Your task to perform on an android device: open app "Booking.com: Hotels and more" Image 0: 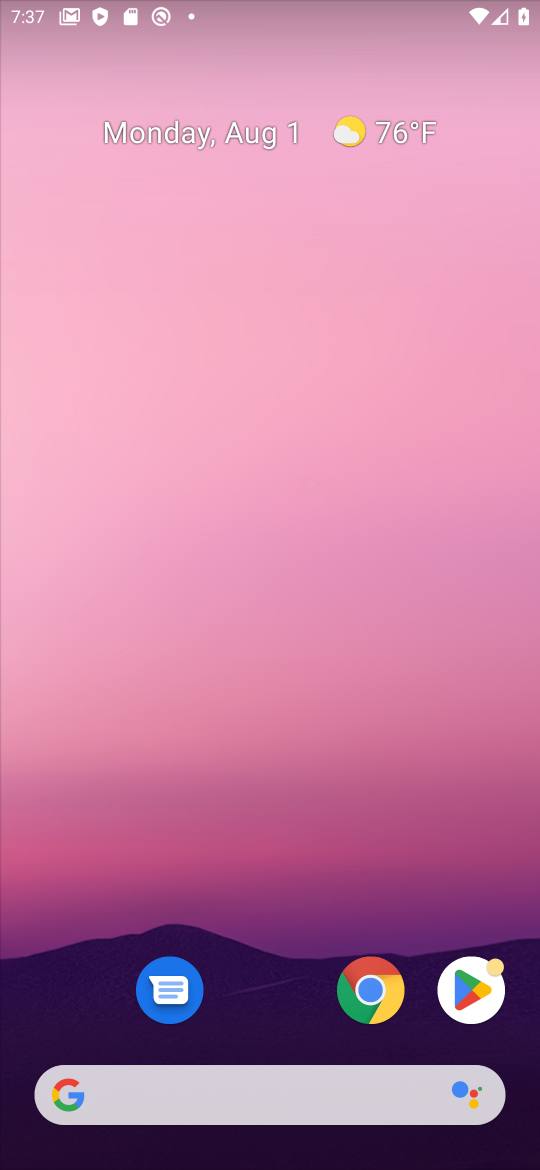
Step 0: press home button
Your task to perform on an android device: open app "Booking.com: Hotels and more" Image 1: 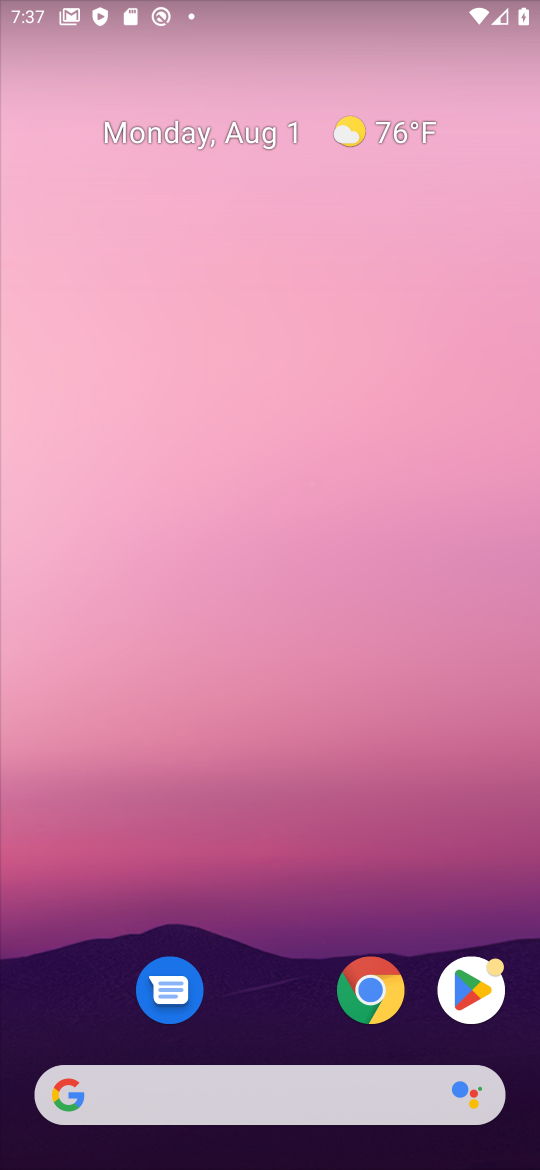
Step 1: click (478, 980)
Your task to perform on an android device: open app "Booking.com: Hotels and more" Image 2: 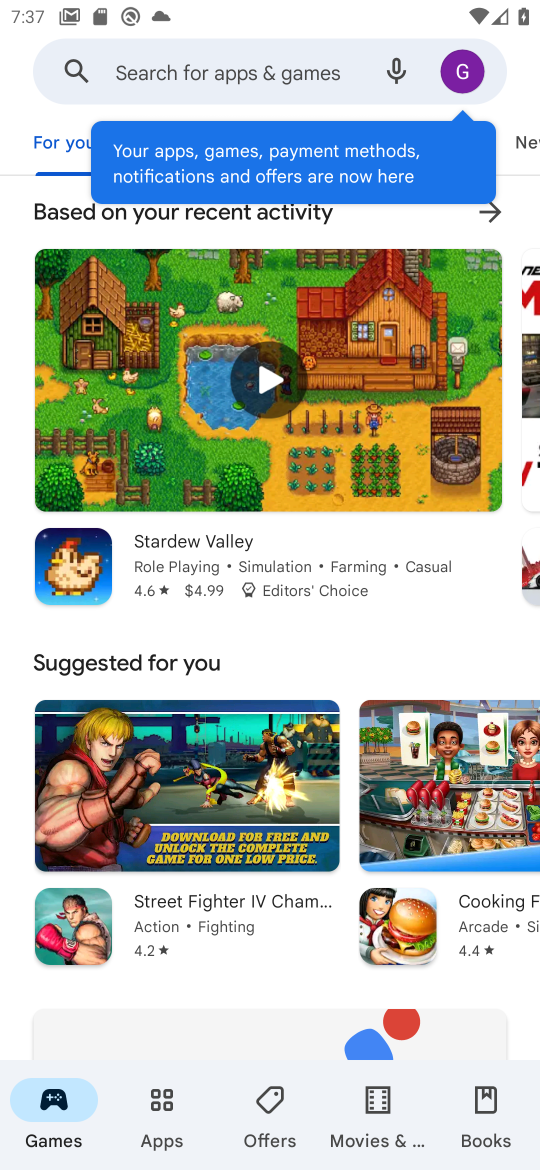
Step 2: click (297, 76)
Your task to perform on an android device: open app "Booking.com: Hotels and more" Image 3: 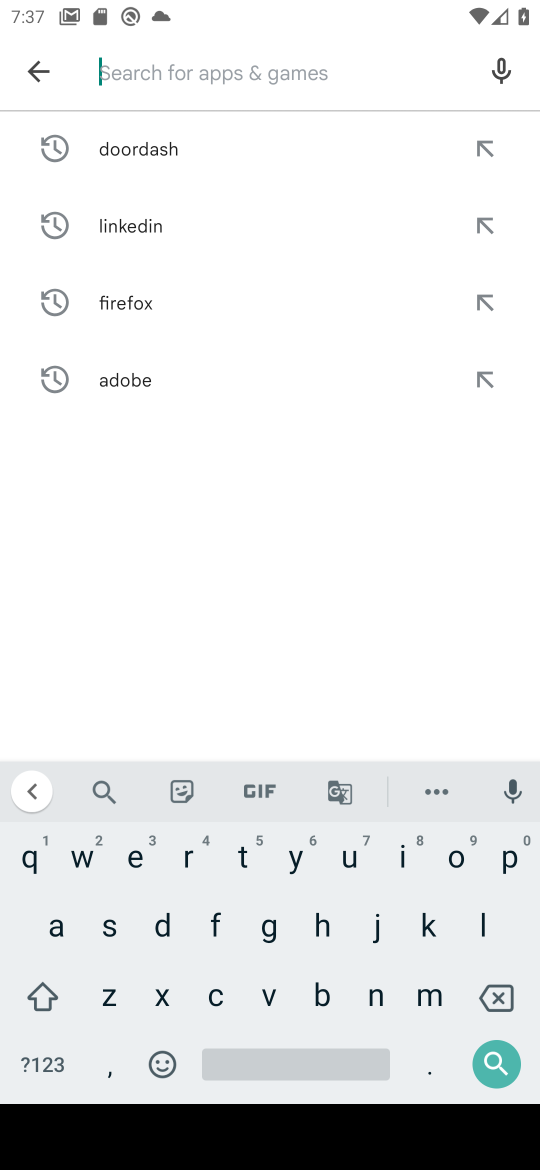
Step 3: click (319, 1010)
Your task to perform on an android device: open app "Booking.com: Hotels and more" Image 4: 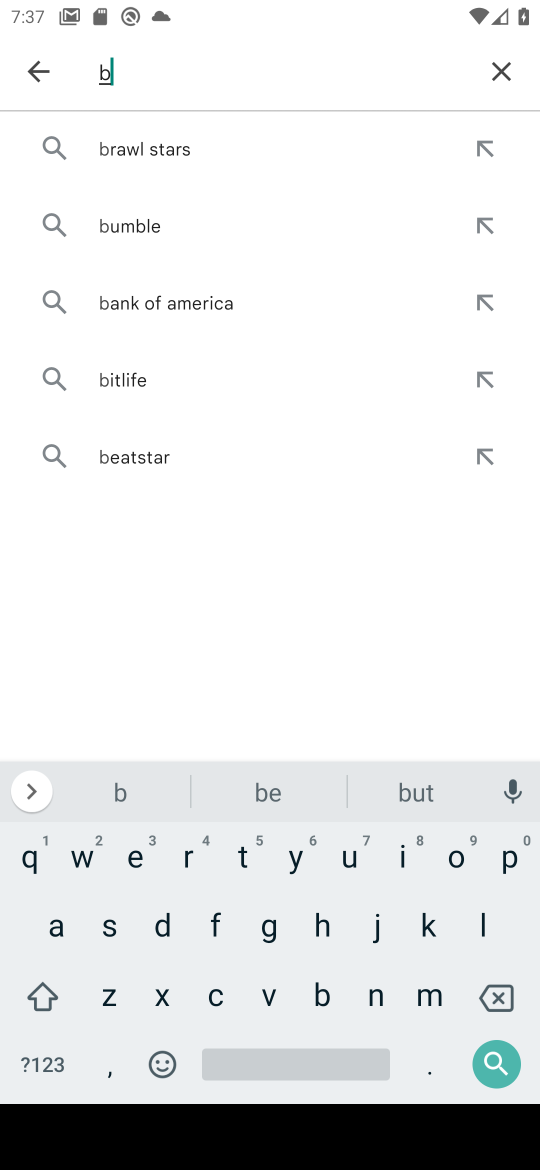
Step 4: click (446, 859)
Your task to perform on an android device: open app "Booking.com: Hotels and more" Image 5: 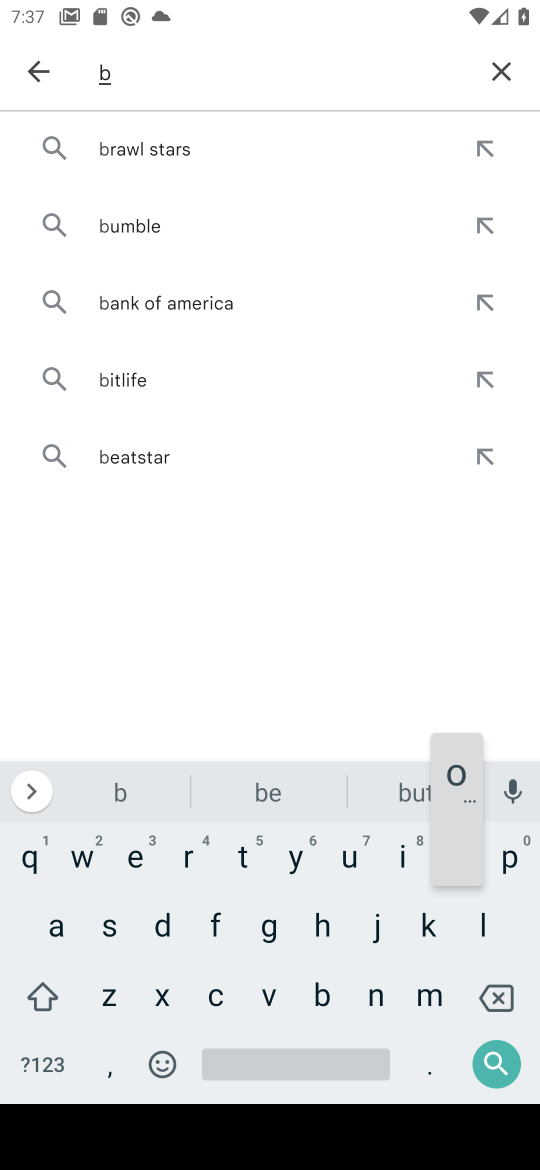
Step 5: click (446, 859)
Your task to perform on an android device: open app "Booking.com: Hotels and more" Image 6: 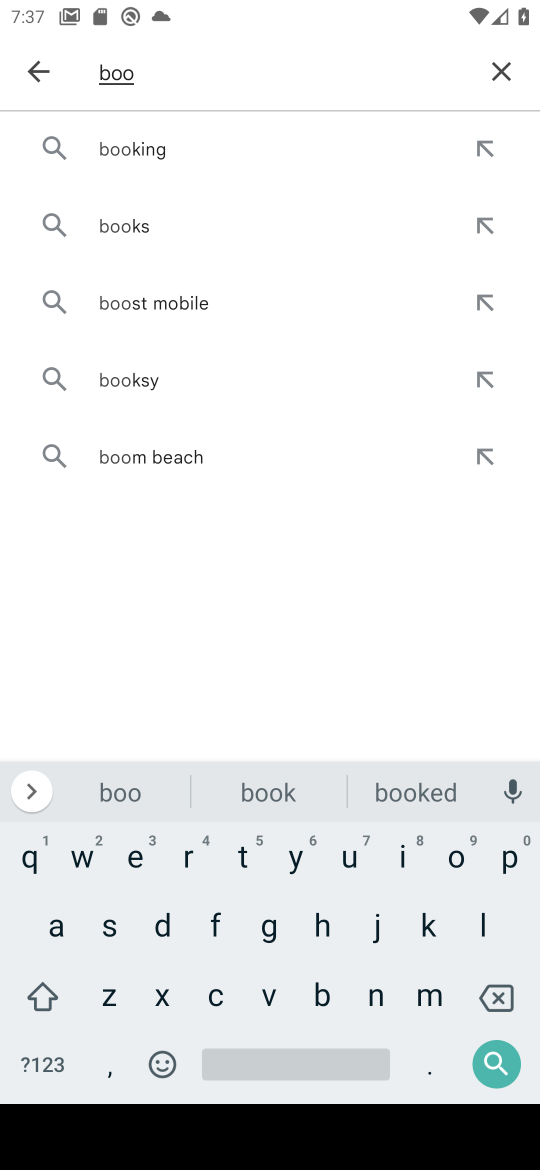
Step 6: click (191, 153)
Your task to perform on an android device: open app "Booking.com: Hotels and more" Image 7: 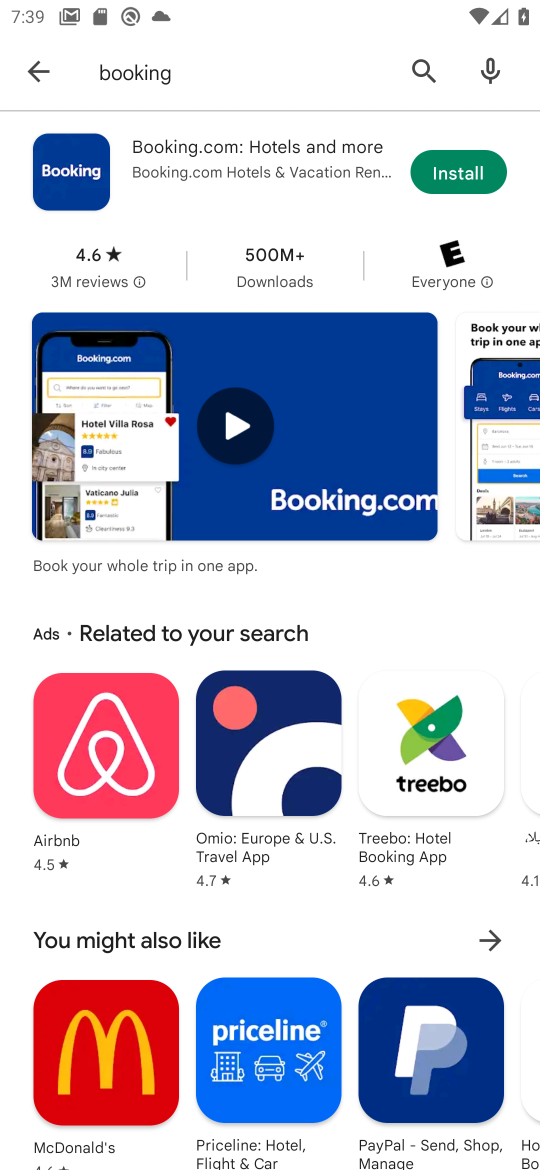
Step 7: task complete